Your task to perform on an android device: Open Chrome and go to settings Image 0: 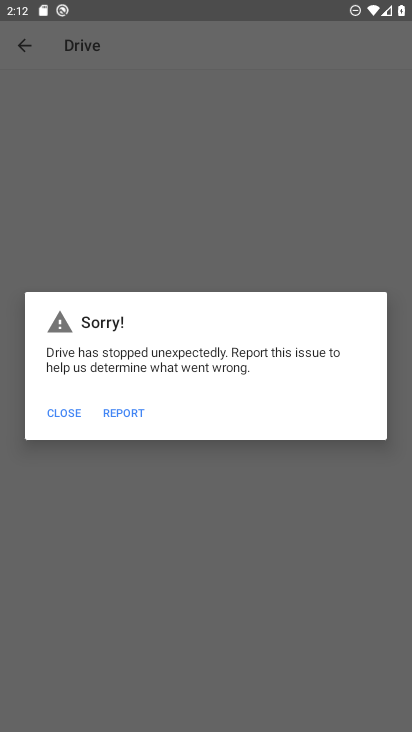
Step 0: press home button
Your task to perform on an android device: Open Chrome and go to settings Image 1: 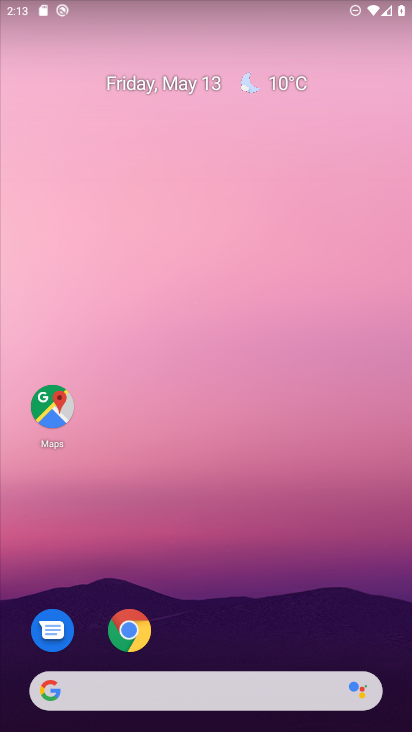
Step 1: drag from (213, 649) to (308, 24)
Your task to perform on an android device: Open Chrome and go to settings Image 2: 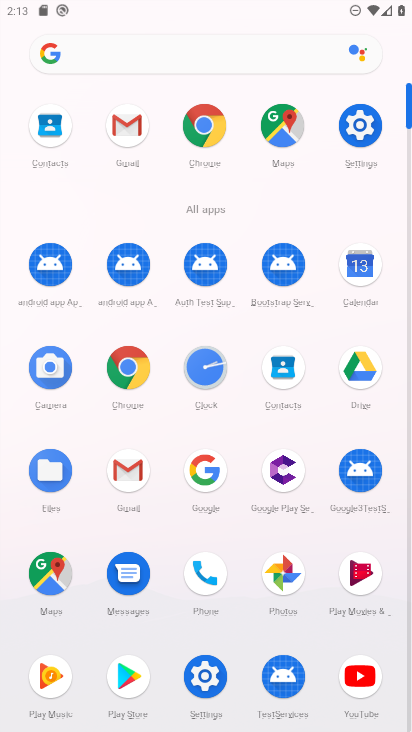
Step 2: click (356, 122)
Your task to perform on an android device: Open Chrome and go to settings Image 3: 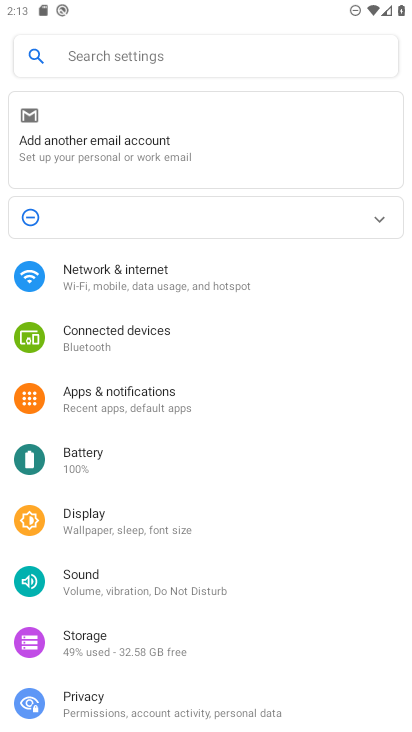
Step 3: drag from (243, 662) to (285, 421)
Your task to perform on an android device: Open Chrome and go to settings Image 4: 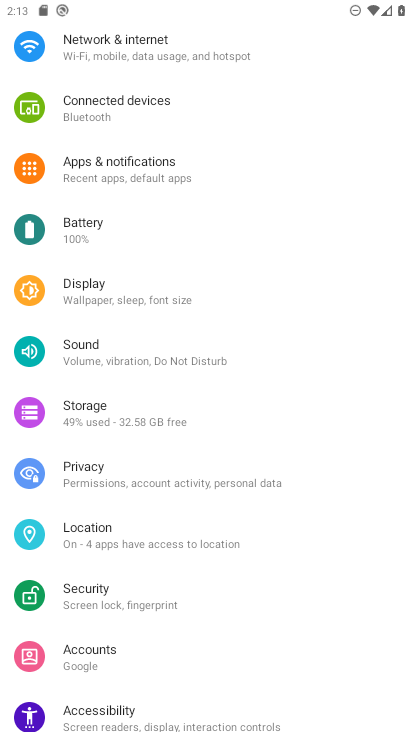
Step 4: press home button
Your task to perform on an android device: Open Chrome and go to settings Image 5: 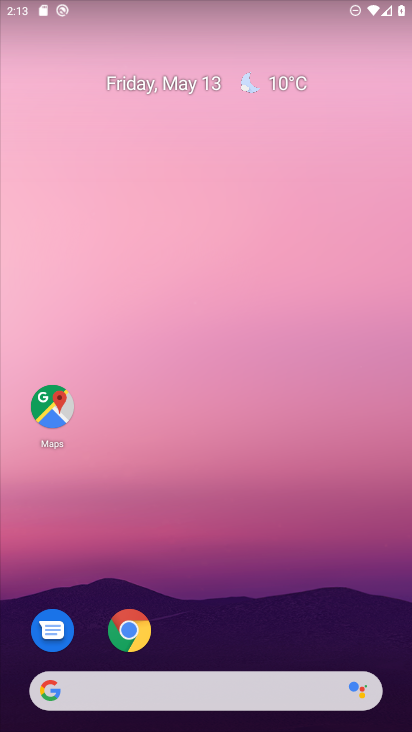
Step 5: click (132, 621)
Your task to perform on an android device: Open Chrome and go to settings Image 6: 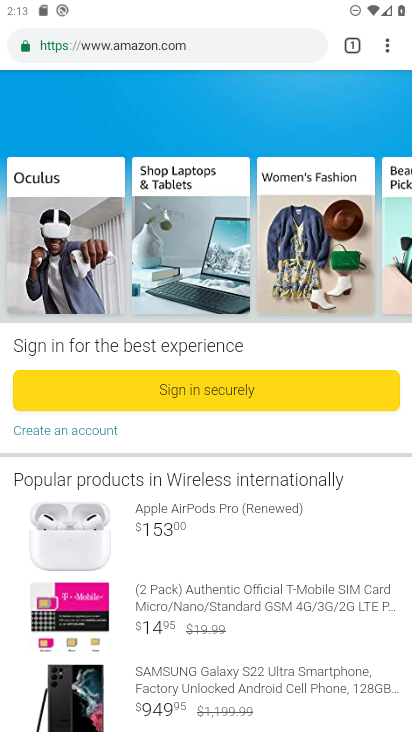
Step 6: click (391, 40)
Your task to perform on an android device: Open Chrome and go to settings Image 7: 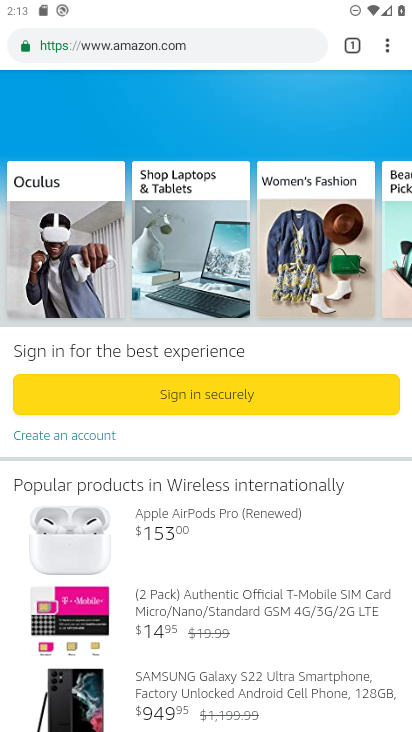
Step 7: click (388, 40)
Your task to perform on an android device: Open Chrome and go to settings Image 8: 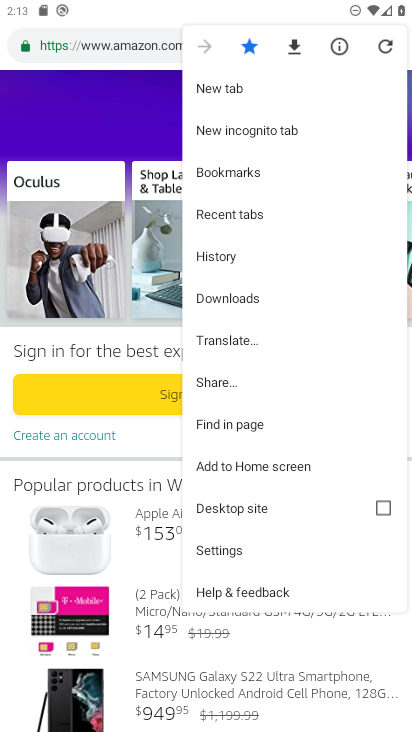
Step 8: click (255, 546)
Your task to perform on an android device: Open Chrome and go to settings Image 9: 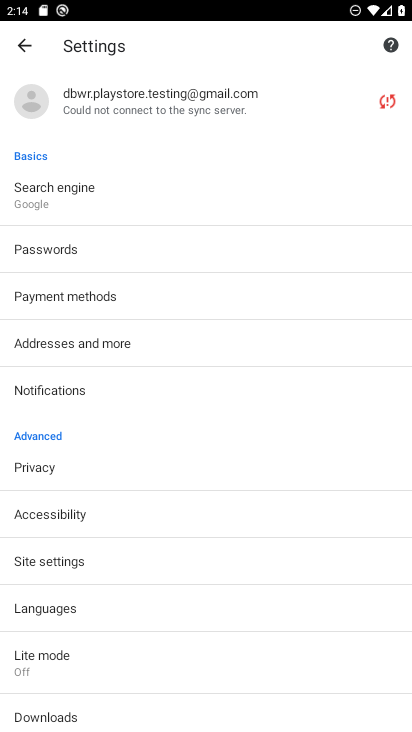
Step 9: task complete